Your task to perform on an android device: change notifications settings Image 0: 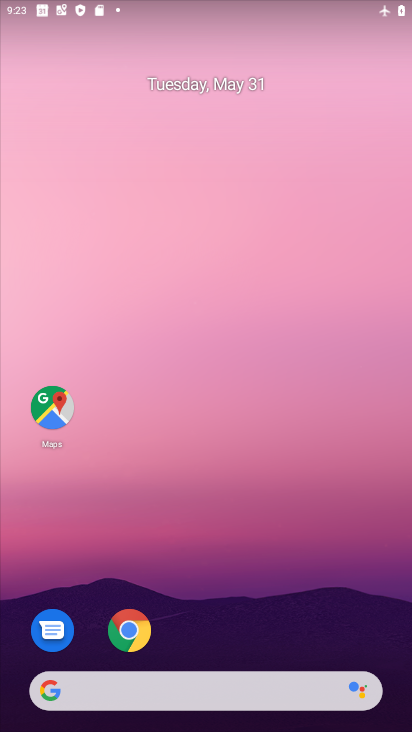
Step 0: drag from (227, 652) to (245, 243)
Your task to perform on an android device: change notifications settings Image 1: 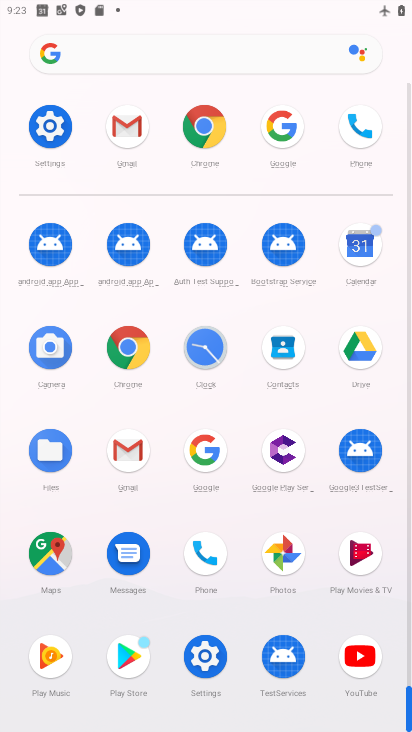
Step 1: click (52, 122)
Your task to perform on an android device: change notifications settings Image 2: 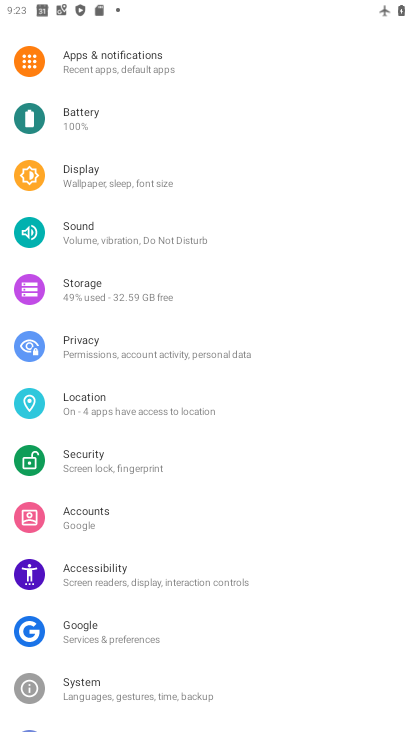
Step 2: click (152, 60)
Your task to perform on an android device: change notifications settings Image 3: 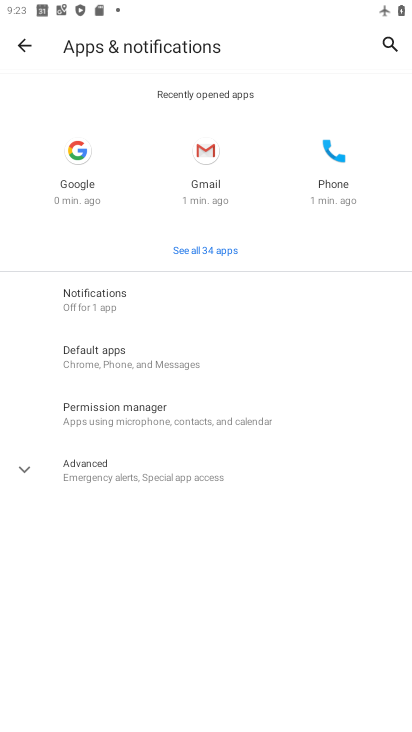
Step 3: click (127, 282)
Your task to perform on an android device: change notifications settings Image 4: 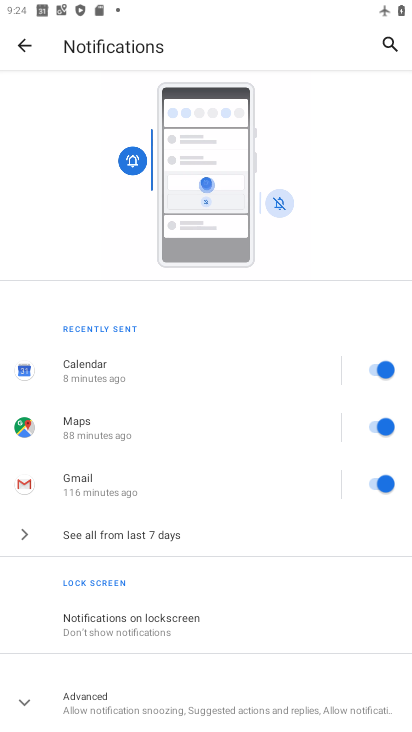
Step 4: task complete